Your task to perform on an android device: Open Yahoo.com Image 0: 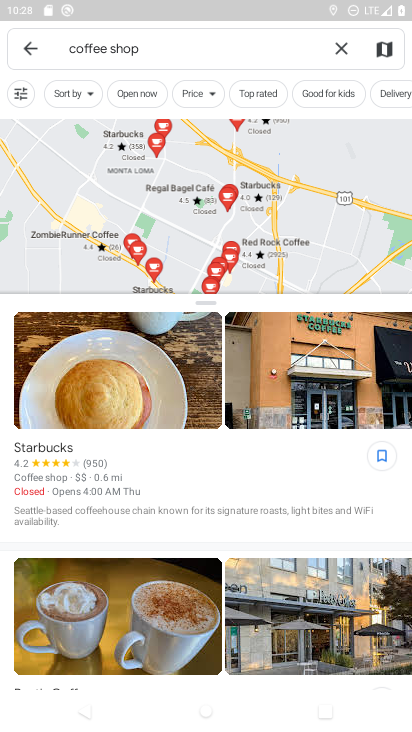
Step 0: press home button
Your task to perform on an android device: Open Yahoo.com Image 1: 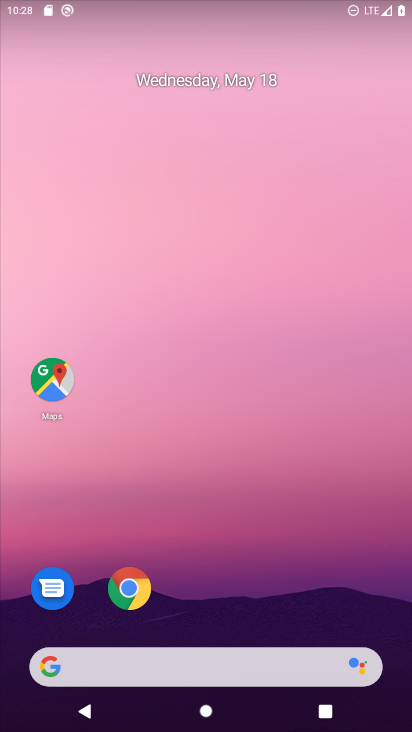
Step 1: click (126, 591)
Your task to perform on an android device: Open Yahoo.com Image 2: 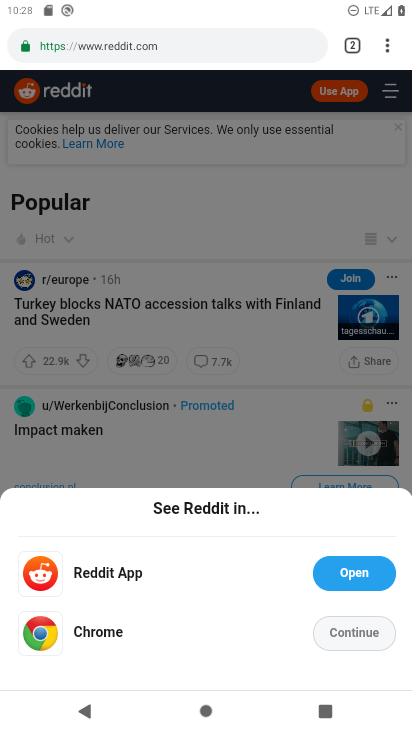
Step 2: click (108, 43)
Your task to perform on an android device: Open Yahoo.com Image 3: 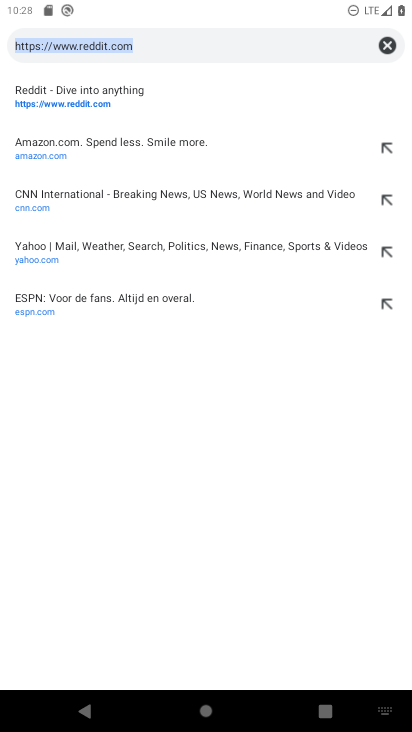
Step 3: click (34, 258)
Your task to perform on an android device: Open Yahoo.com Image 4: 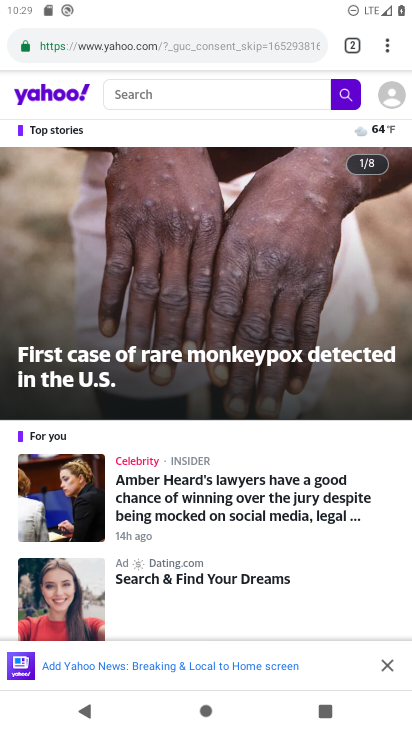
Step 4: task complete